Your task to perform on an android device: set default search engine in the chrome app Image 0: 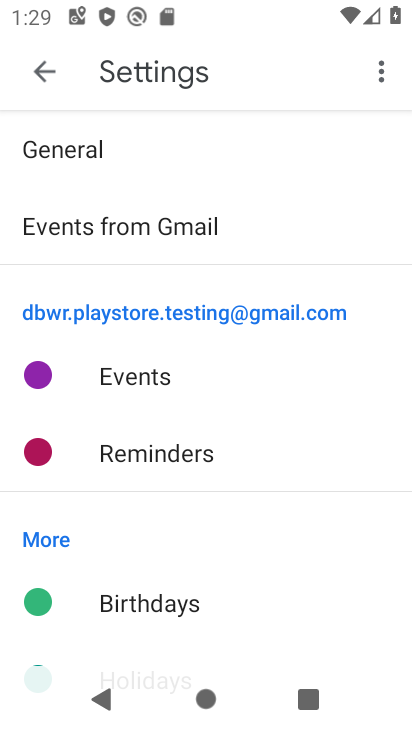
Step 0: press home button
Your task to perform on an android device: set default search engine in the chrome app Image 1: 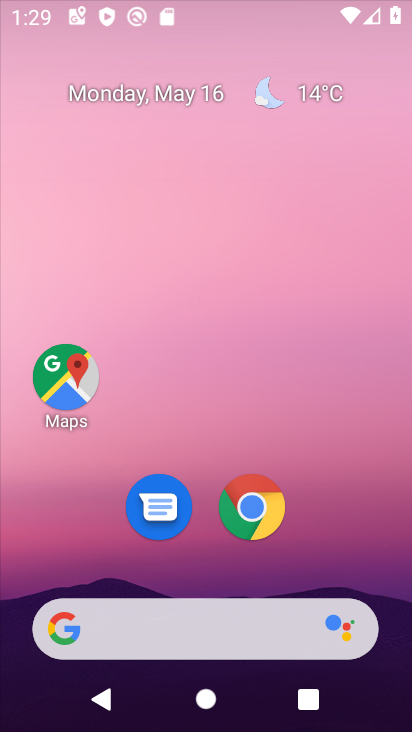
Step 1: drag from (290, 567) to (301, 150)
Your task to perform on an android device: set default search engine in the chrome app Image 2: 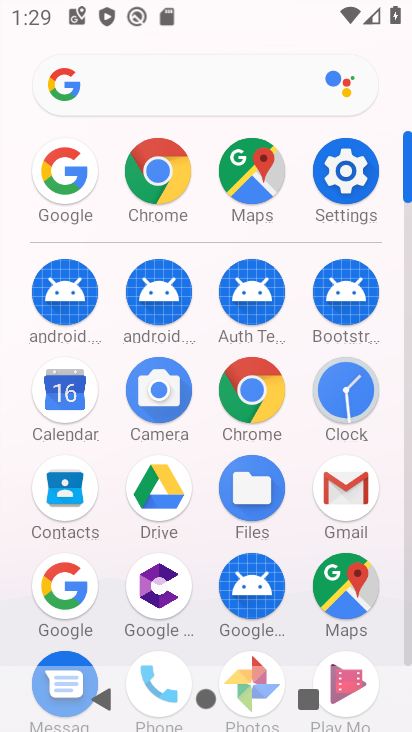
Step 2: click (249, 395)
Your task to perform on an android device: set default search engine in the chrome app Image 3: 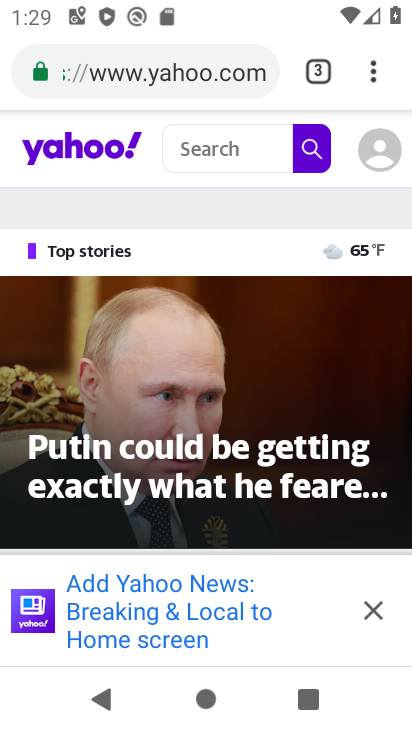
Step 3: click (368, 78)
Your task to perform on an android device: set default search engine in the chrome app Image 4: 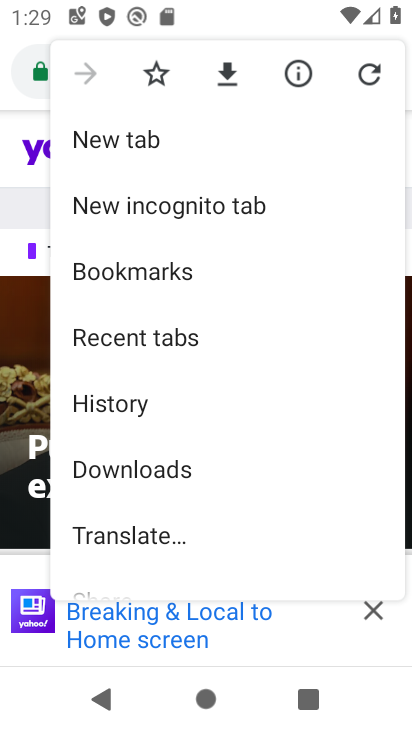
Step 4: drag from (265, 442) to (331, 166)
Your task to perform on an android device: set default search engine in the chrome app Image 5: 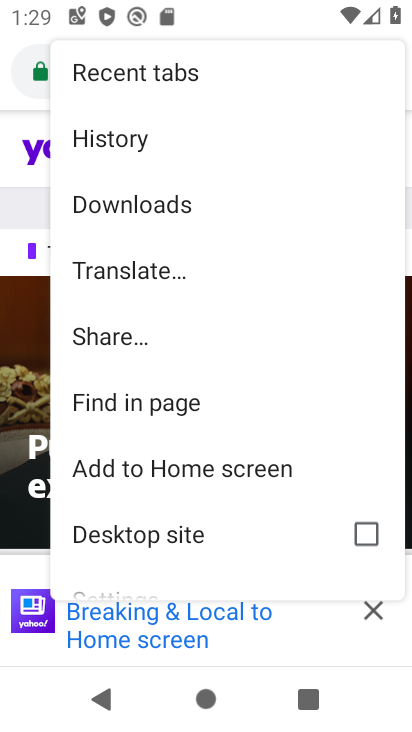
Step 5: drag from (241, 431) to (323, 178)
Your task to perform on an android device: set default search engine in the chrome app Image 6: 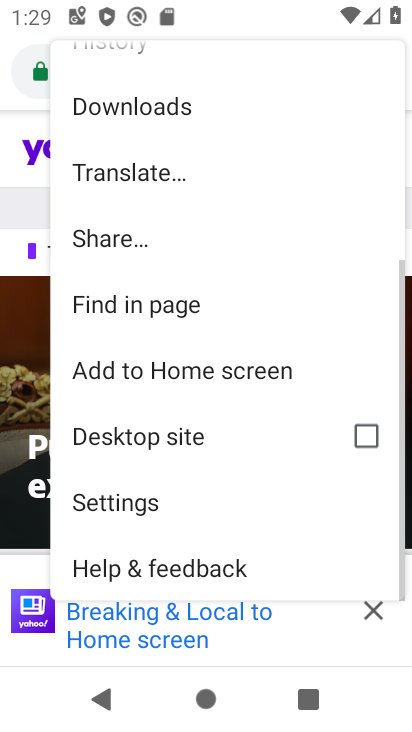
Step 6: click (167, 507)
Your task to perform on an android device: set default search engine in the chrome app Image 7: 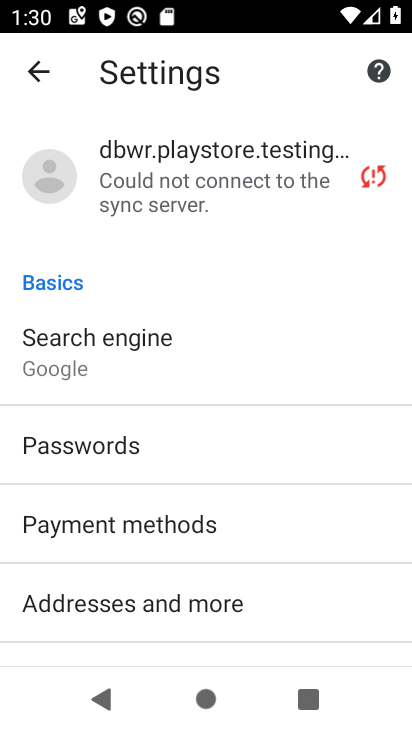
Step 7: drag from (206, 423) to (275, 197)
Your task to perform on an android device: set default search engine in the chrome app Image 8: 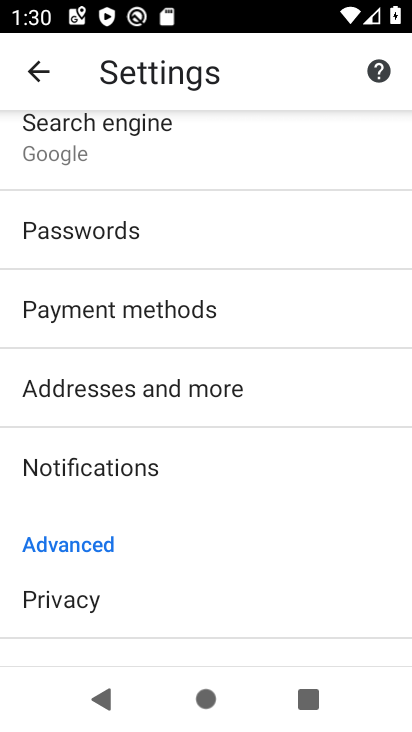
Step 8: drag from (197, 514) to (215, 729)
Your task to perform on an android device: set default search engine in the chrome app Image 9: 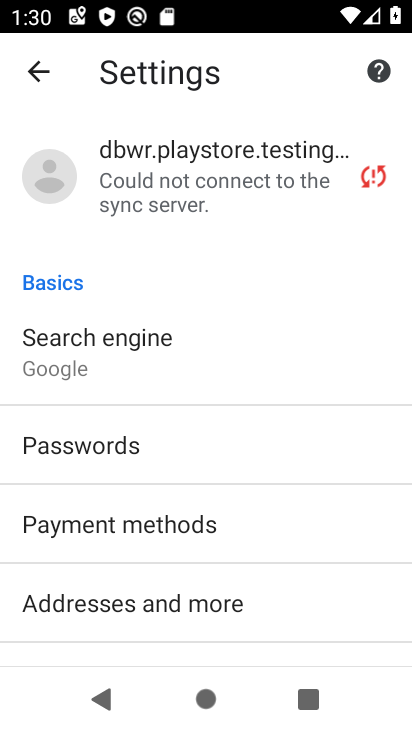
Step 9: click (171, 359)
Your task to perform on an android device: set default search engine in the chrome app Image 10: 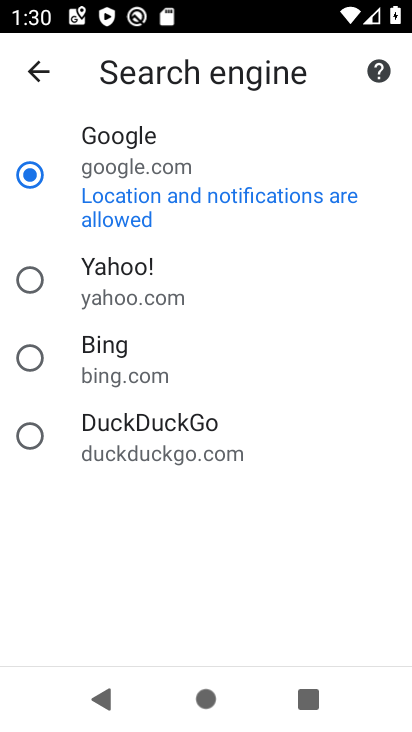
Step 10: task complete